Your task to perform on an android device: Find coffee shops on Maps Image 0: 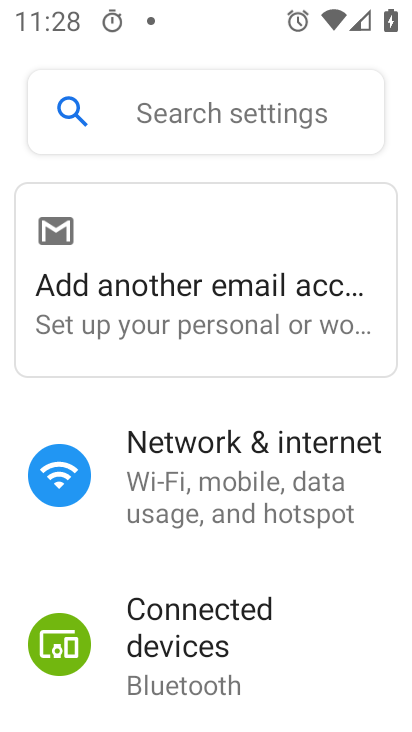
Step 0: press home button
Your task to perform on an android device: Find coffee shops on Maps Image 1: 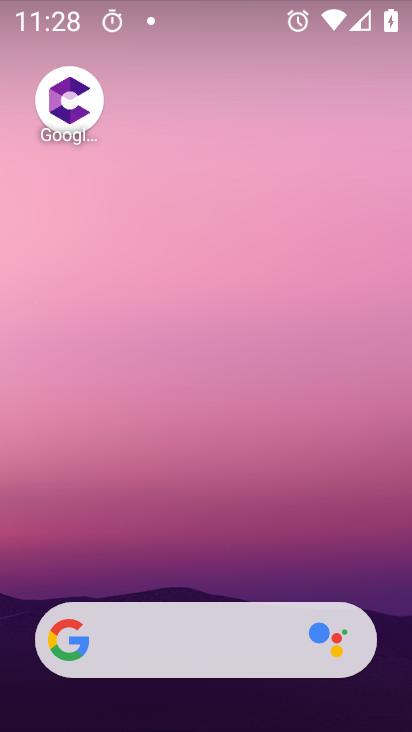
Step 1: drag from (175, 580) to (240, 0)
Your task to perform on an android device: Find coffee shops on Maps Image 2: 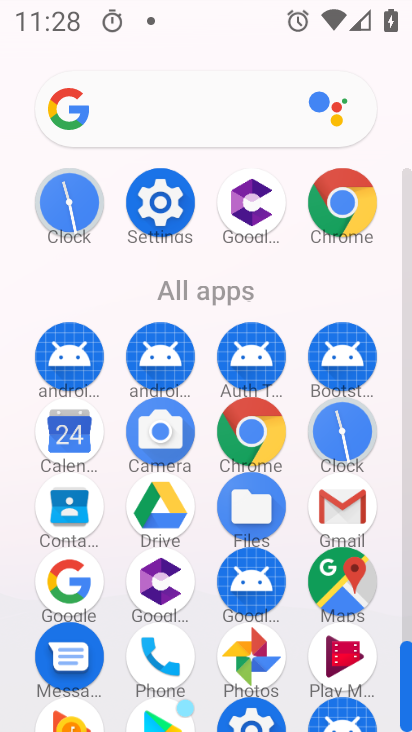
Step 2: click (360, 584)
Your task to perform on an android device: Find coffee shops on Maps Image 3: 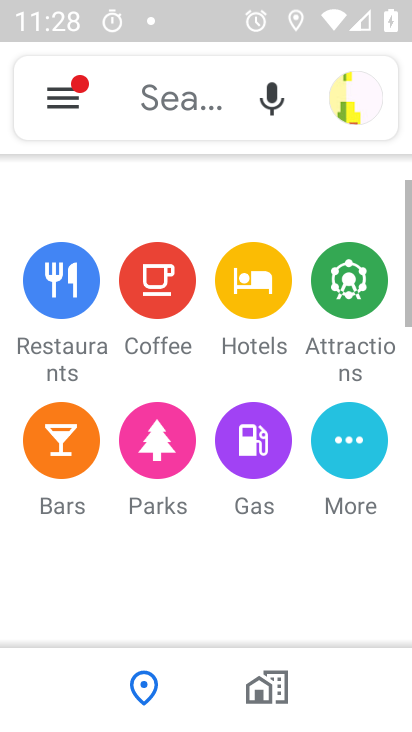
Step 3: click (172, 106)
Your task to perform on an android device: Find coffee shops on Maps Image 4: 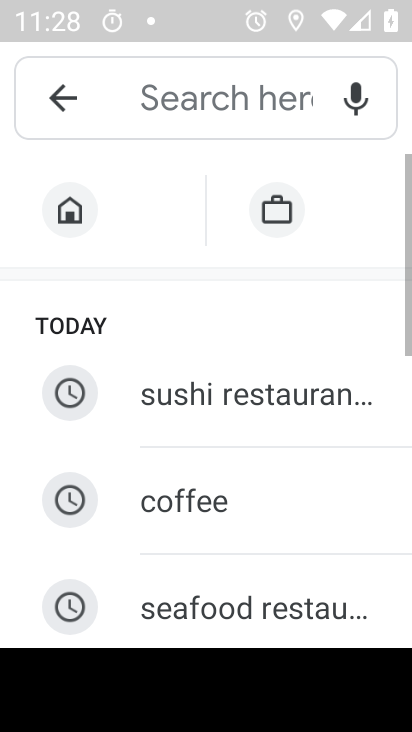
Step 4: drag from (365, 526) to (343, 310)
Your task to perform on an android device: Find coffee shops on Maps Image 5: 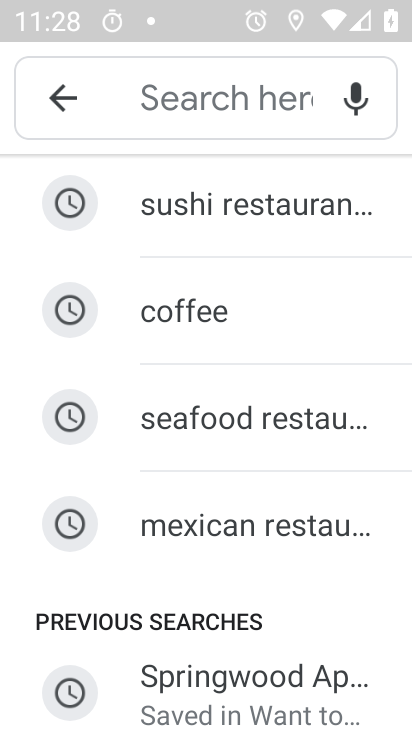
Step 5: click (220, 321)
Your task to perform on an android device: Find coffee shops on Maps Image 6: 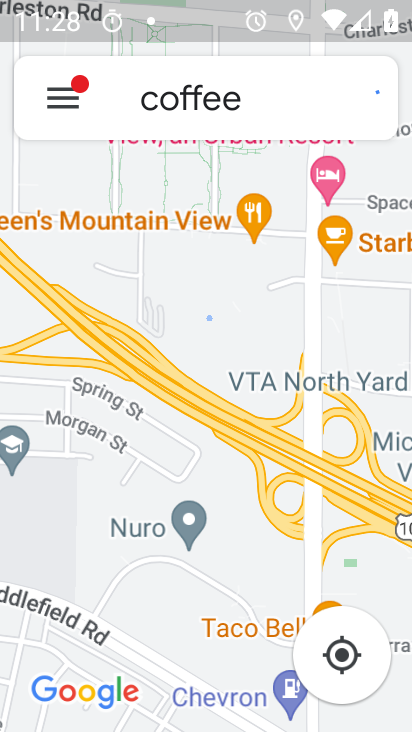
Step 6: task complete